Your task to perform on an android device: search for starred emails in the gmail app Image 0: 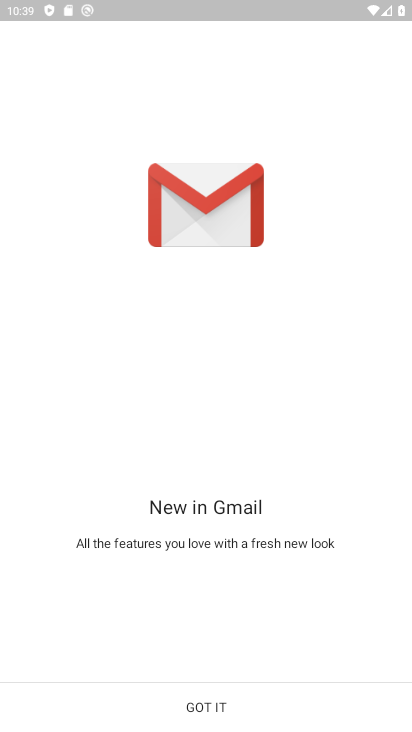
Step 0: click (243, 692)
Your task to perform on an android device: search for starred emails in the gmail app Image 1: 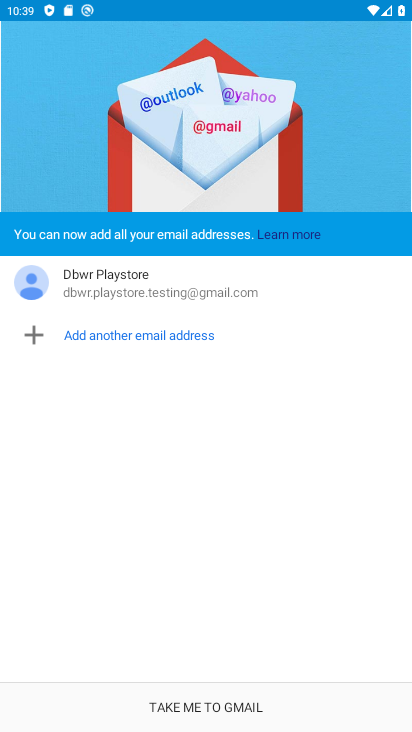
Step 1: click (246, 713)
Your task to perform on an android device: search for starred emails in the gmail app Image 2: 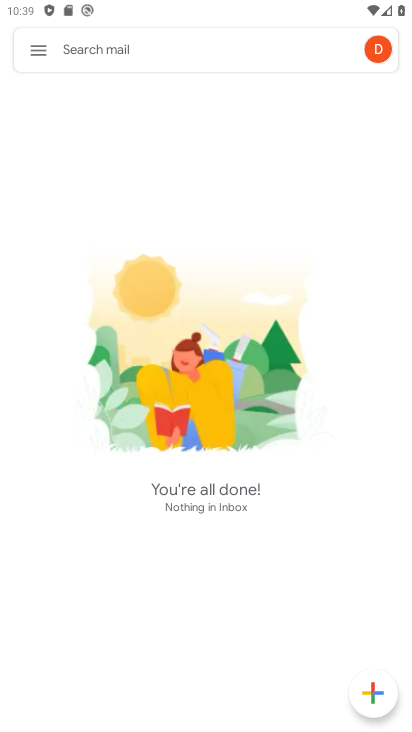
Step 2: click (40, 56)
Your task to perform on an android device: search for starred emails in the gmail app Image 3: 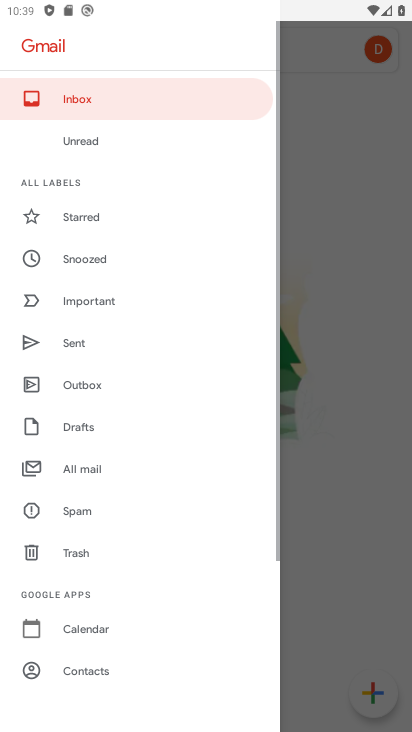
Step 3: drag from (135, 470) to (152, 365)
Your task to perform on an android device: search for starred emails in the gmail app Image 4: 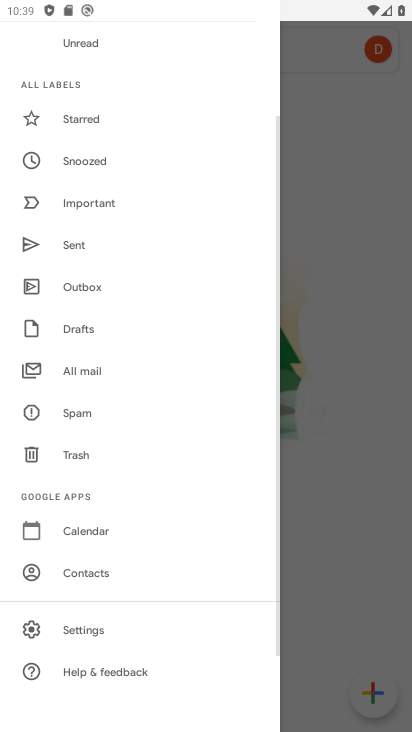
Step 4: drag from (171, 538) to (184, 408)
Your task to perform on an android device: search for starred emails in the gmail app Image 5: 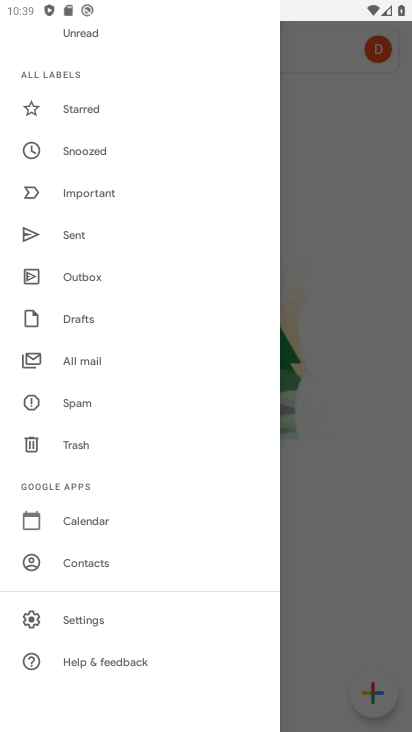
Step 5: drag from (214, 278) to (197, 396)
Your task to perform on an android device: search for starred emails in the gmail app Image 6: 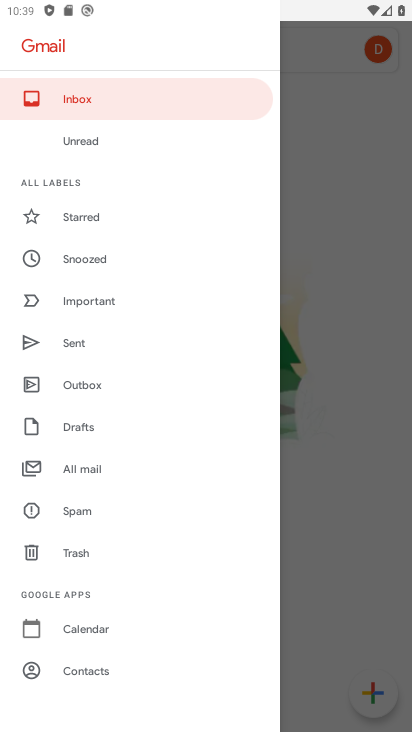
Step 6: drag from (209, 252) to (195, 380)
Your task to perform on an android device: search for starred emails in the gmail app Image 7: 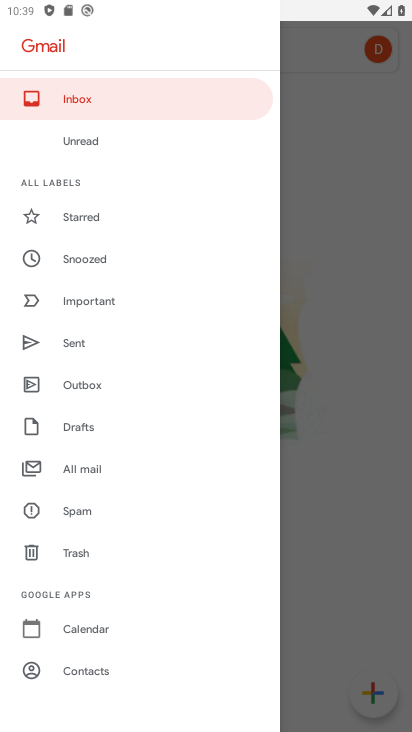
Step 7: click (87, 219)
Your task to perform on an android device: search for starred emails in the gmail app Image 8: 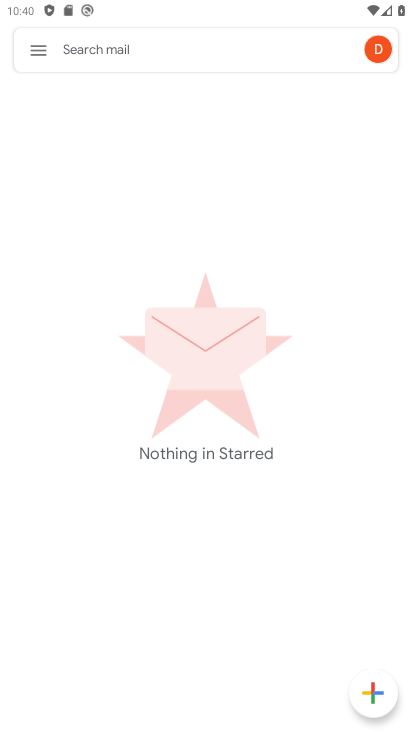
Step 8: task complete